Your task to perform on an android device: Find coffee shops on Maps Image 0: 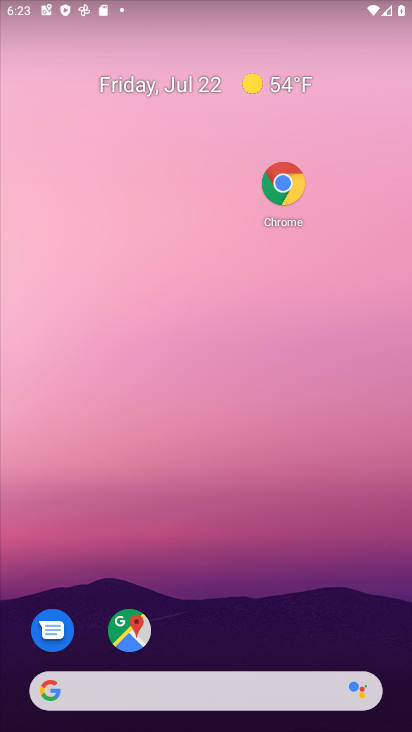
Step 0: drag from (204, 599) to (142, 4)
Your task to perform on an android device: Find coffee shops on Maps Image 1: 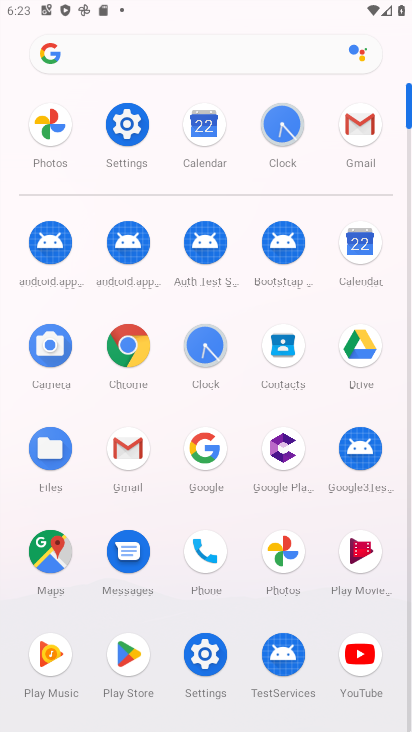
Step 1: click (41, 554)
Your task to perform on an android device: Find coffee shops on Maps Image 2: 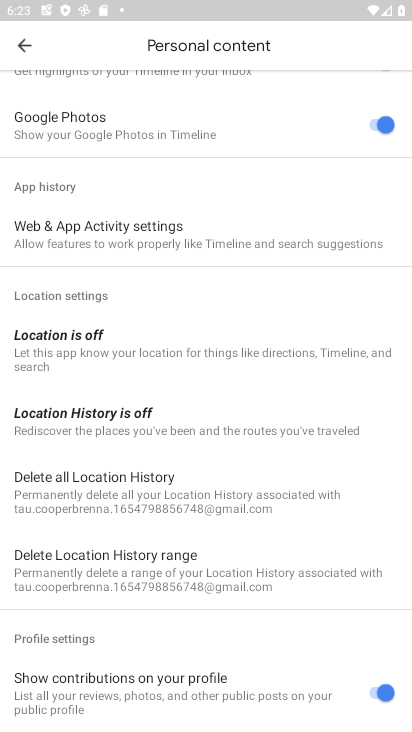
Step 2: click (25, 43)
Your task to perform on an android device: Find coffee shops on Maps Image 3: 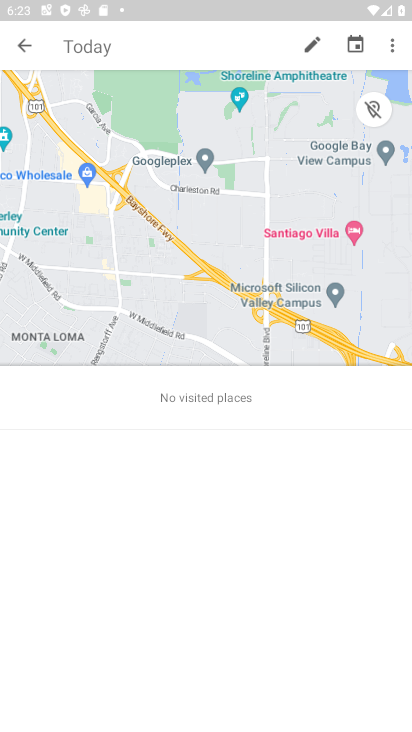
Step 3: click (25, 40)
Your task to perform on an android device: Find coffee shops on Maps Image 4: 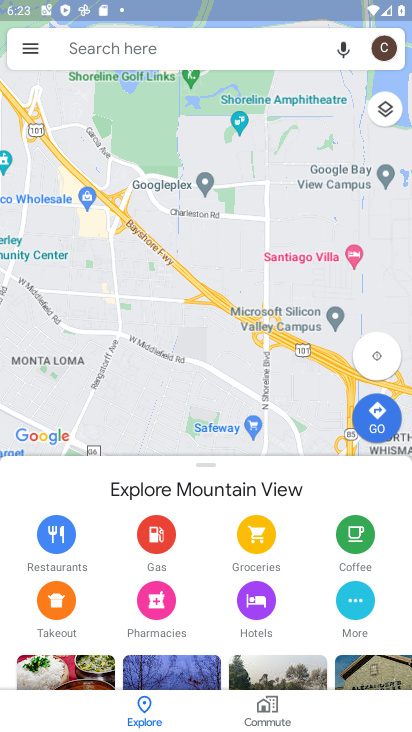
Step 4: click (121, 39)
Your task to perform on an android device: Find coffee shops on Maps Image 5: 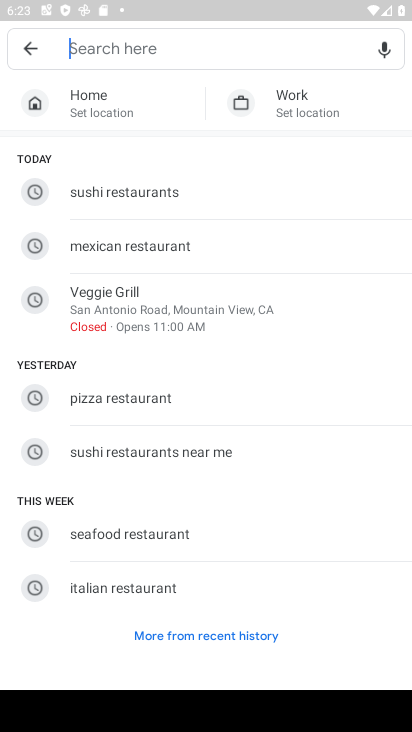
Step 5: type "coffee shops"
Your task to perform on an android device: Find coffee shops on Maps Image 6: 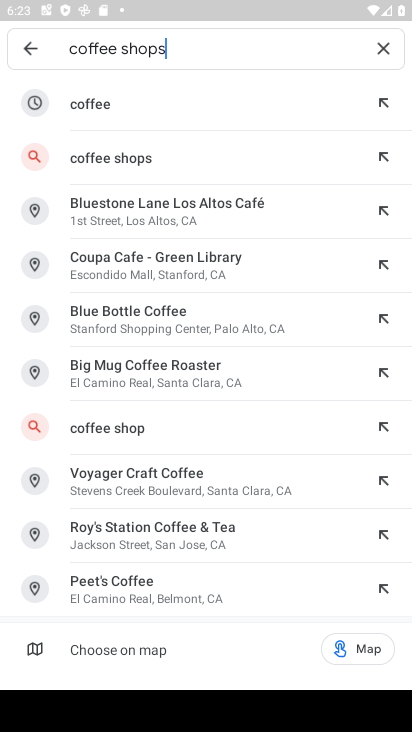
Step 6: click (65, 158)
Your task to perform on an android device: Find coffee shops on Maps Image 7: 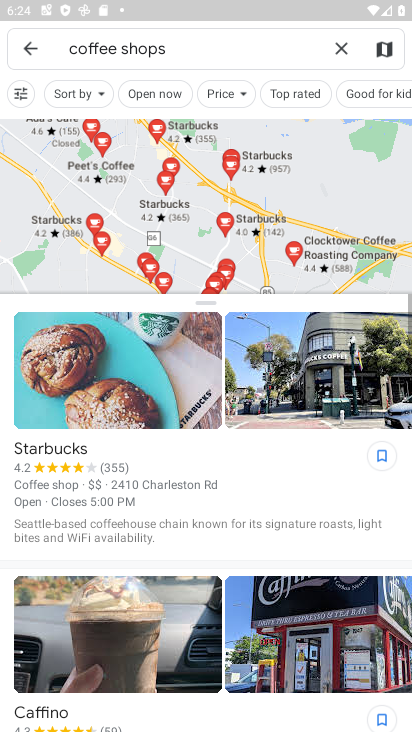
Step 7: task complete